Your task to perform on an android device: Open network settings Image 0: 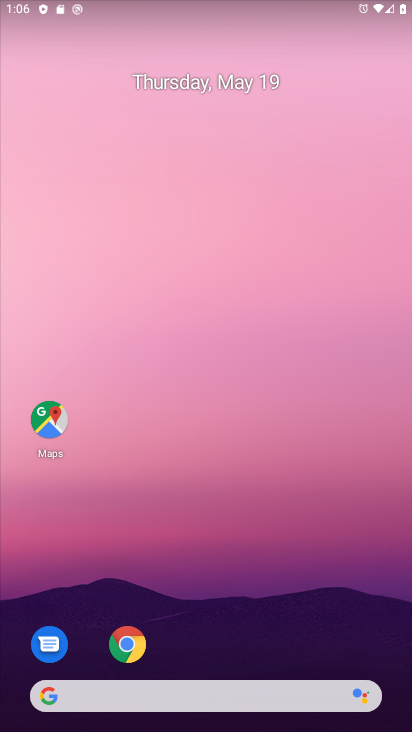
Step 0: drag from (368, 542) to (230, 105)
Your task to perform on an android device: Open network settings Image 1: 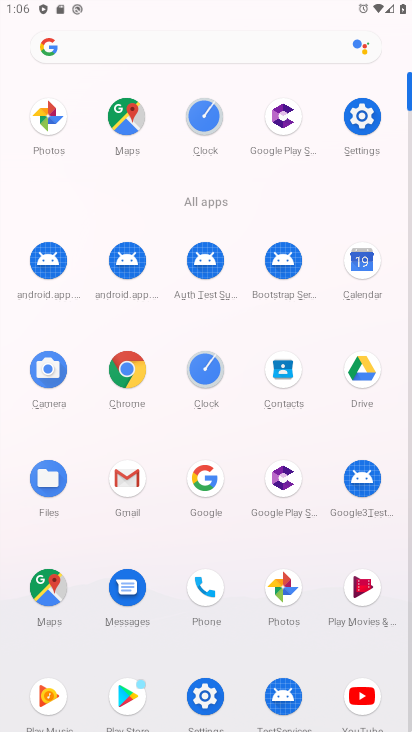
Step 1: click (368, 133)
Your task to perform on an android device: Open network settings Image 2: 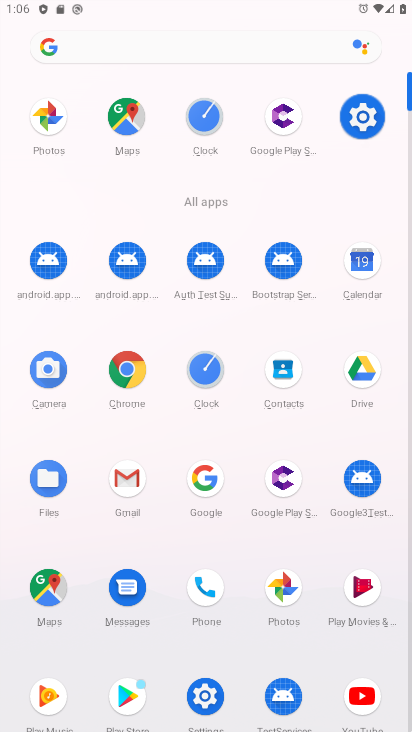
Step 2: click (364, 122)
Your task to perform on an android device: Open network settings Image 3: 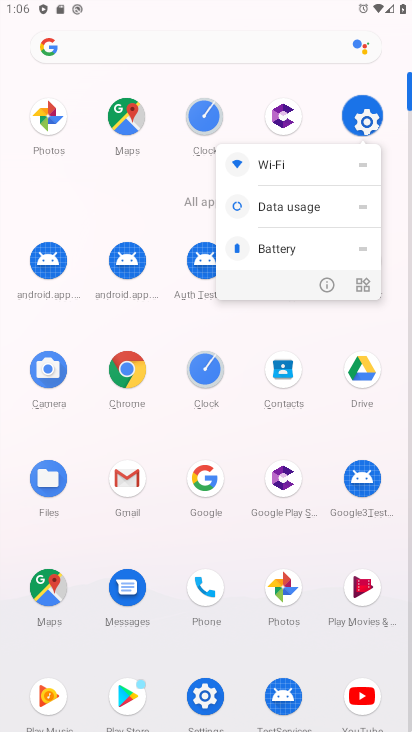
Step 3: click (366, 122)
Your task to perform on an android device: Open network settings Image 4: 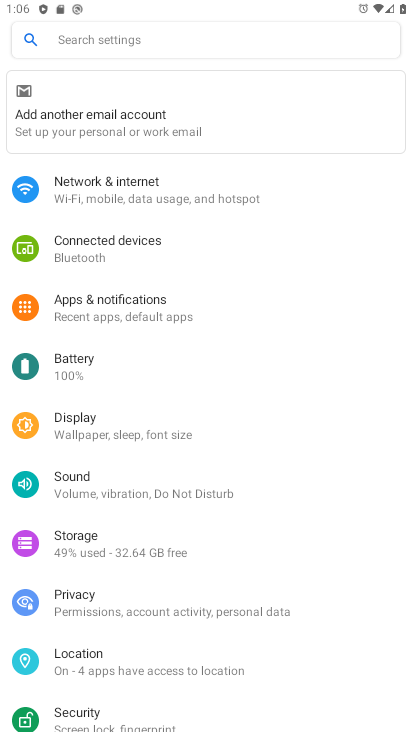
Step 4: drag from (117, 460) to (114, 82)
Your task to perform on an android device: Open network settings Image 5: 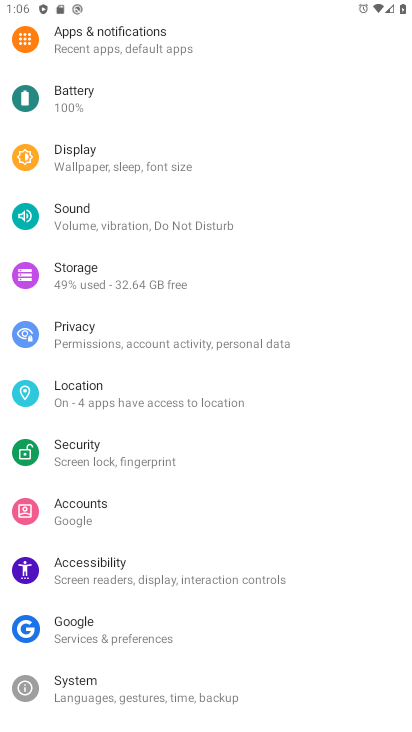
Step 5: drag from (125, 453) to (81, 104)
Your task to perform on an android device: Open network settings Image 6: 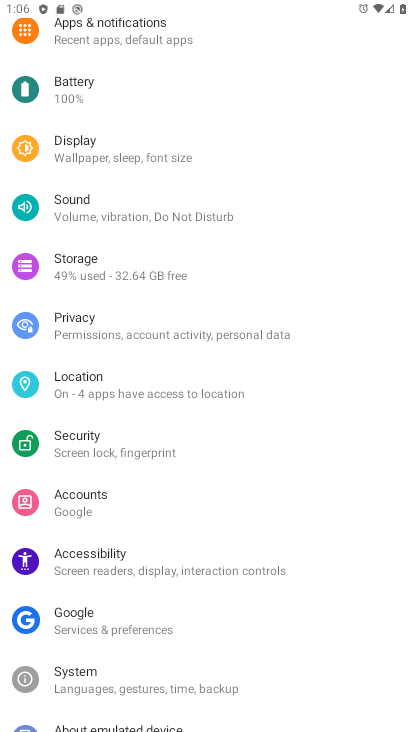
Step 6: click (163, 644)
Your task to perform on an android device: Open network settings Image 7: 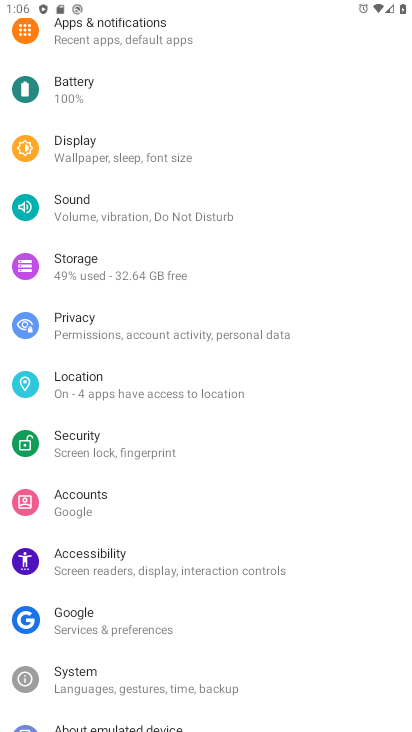
Step 7: drag from (124, 238) to (176, 570)
Your task to perform on an android device: Open network settings Image 8: 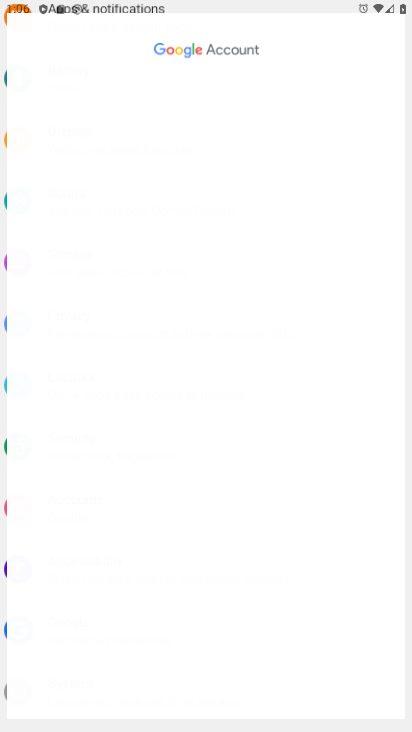
Step 8: drag from (117, 130) to (241, 567)
Your task to perform on an android device: Open network settings Image 9: 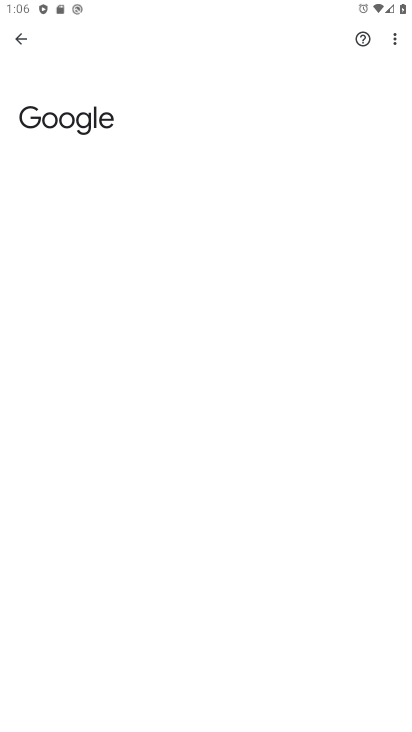
Step 9: drag from (126, 159) to (195, 491)
Your task to perform on an android device: Open network settings Image 10: 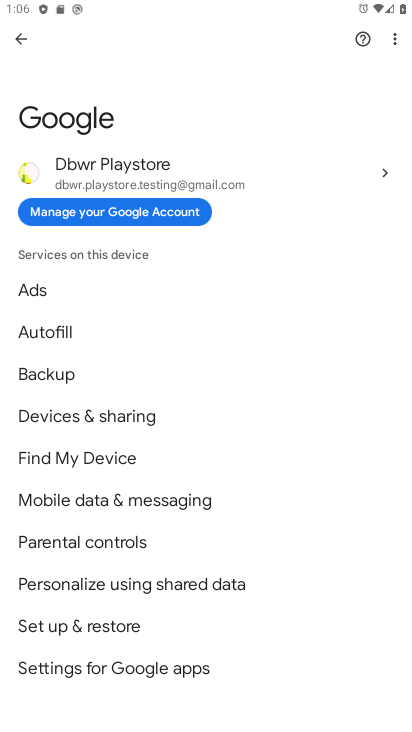
Step 10: click (12, 40)
Your task to perform on an android device: Open network settings Image 11: 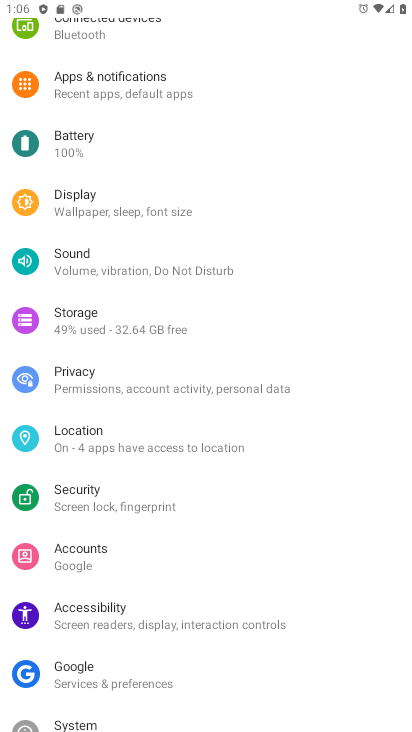
Step 11: drag from (105, 191) to (188, 509)
Your task to perform on an android device: Open network settings Image 12: 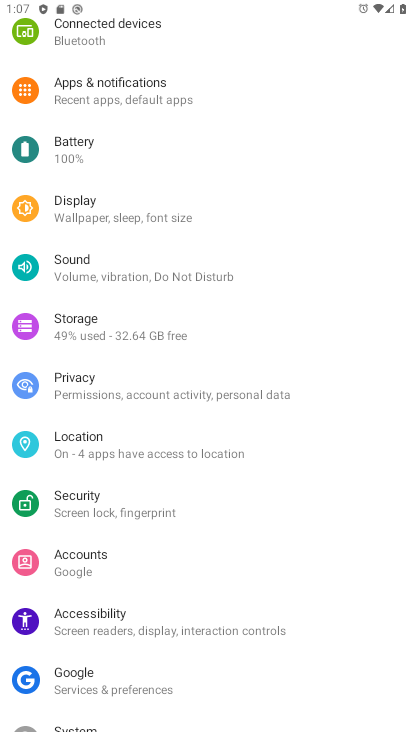
Step 12: drag from (102, 117) to (161, 592)
Your task to perform on an android device: Open network settings Image 13: 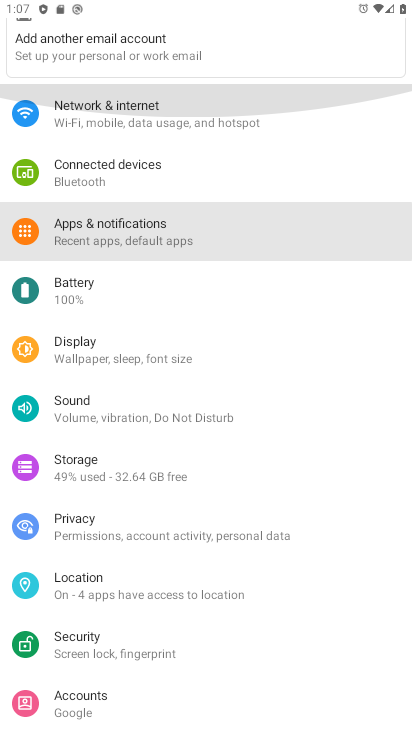
Step 13: drag from (125, 356) to (167, 532)
Your task to perform on an android device: Open network settings Image 14: 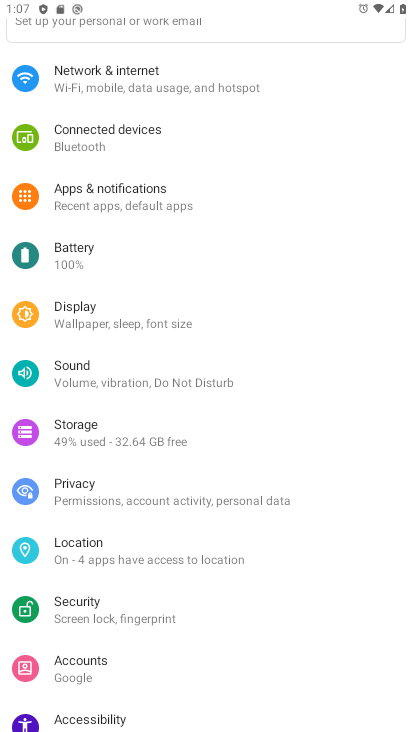
Step 14: click (129, 99)
Your task to perform on an android device: Open network settings Image 15: 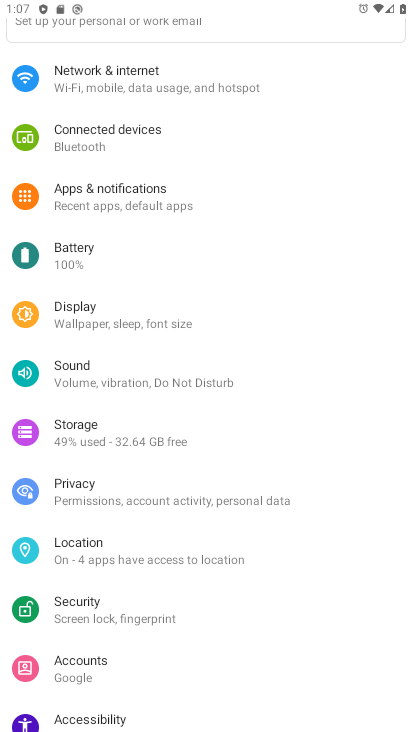
Step 15: click (119, 81)
Your task to perform on an android device: Open network settings Image 16: 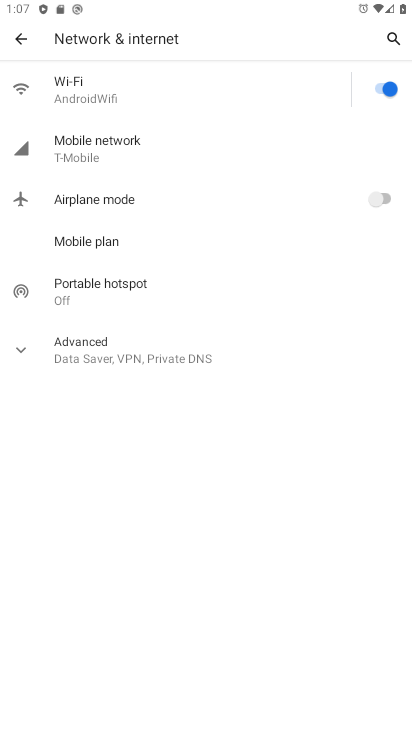
Step 16: task complete